Your task to perform on an android device: clear history in the chrome app Image 0: 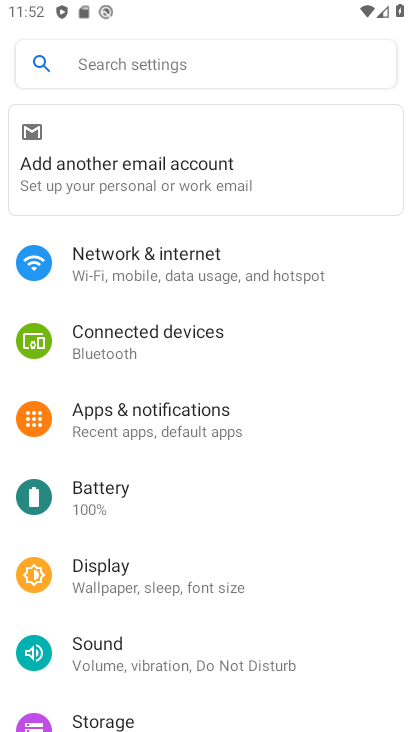
Step 0: press home button
Your task to perform on an android device: clear history in the chrome app Image 1: 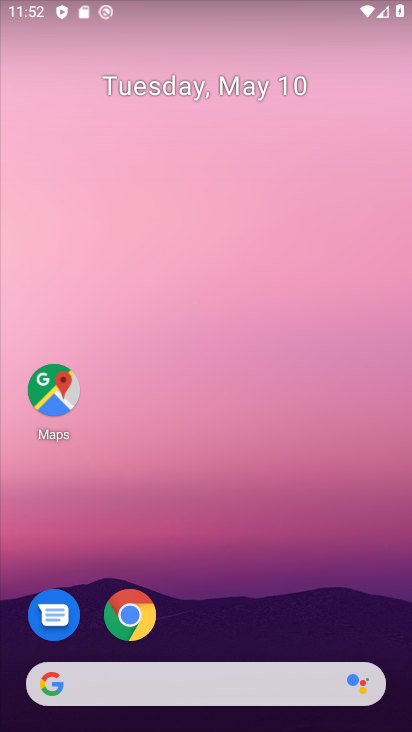
Step 1: click (133, 609)
Your task to perform on an android device: clear history in the chrome app Image 2: 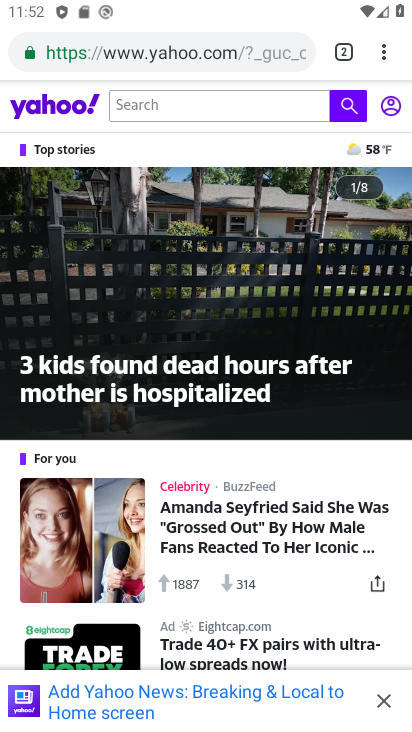
Step 2: click (390, 52)
Your task to perform on an android device: clear history in the chrome app Image 3: 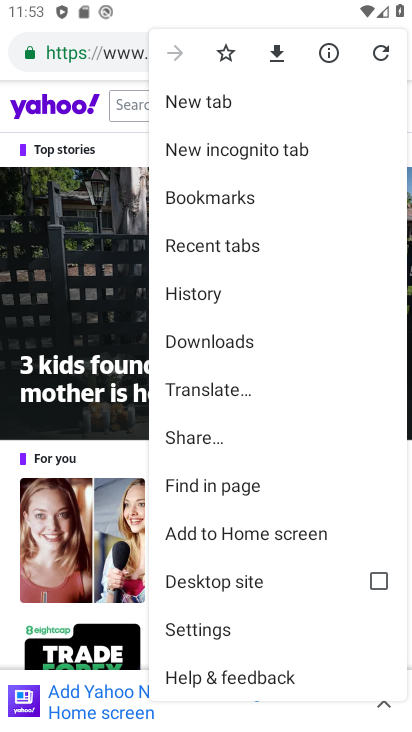
Step 3: click (200, 302)
Your task to perform on an android device: clear history in the chrome app Image 4: 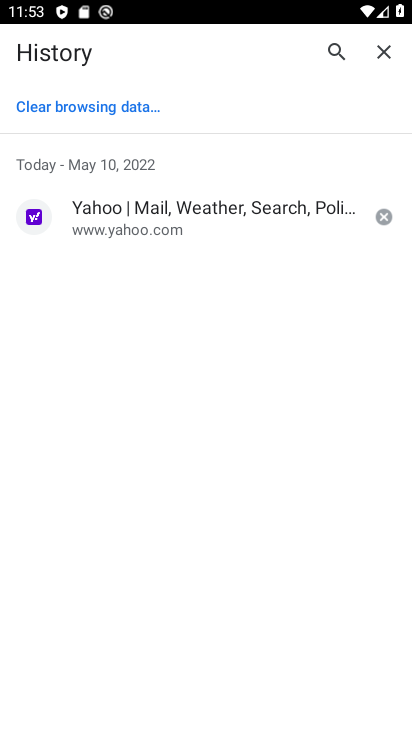
Step 4: click (148, 116)
Your task to perform on an android device: clear history in the chrome app Image 5: 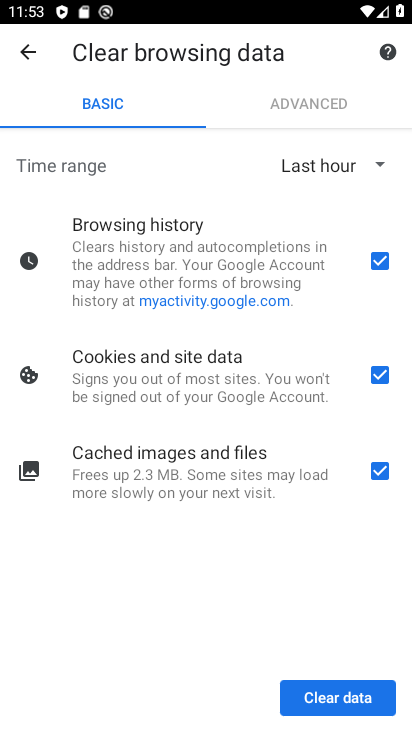
Step 5: click (323, 701)
Your task to perform on an android device: clear history in the chrome app Image 6: 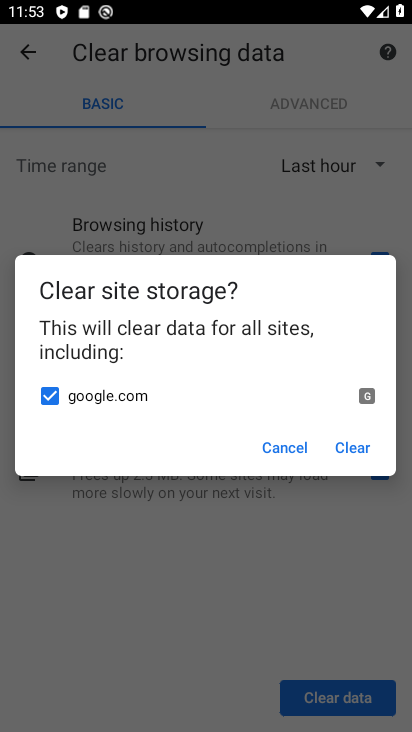
Step 6: click (353, 441)
Your task to perform on an android device: clear history in the chrome app Image 7: 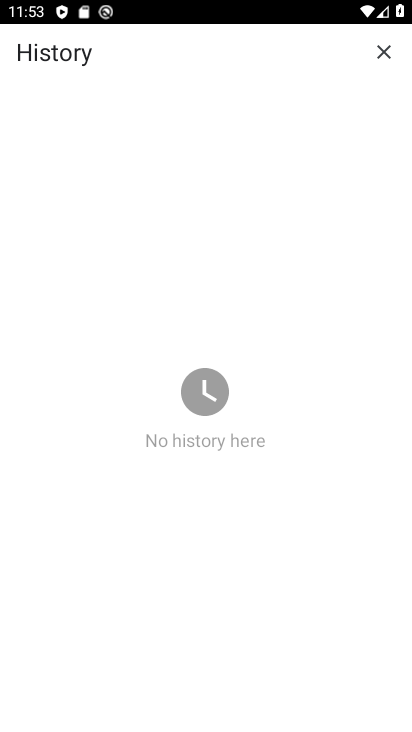
Step 7: task complete